Your task to perform on an android device: Open maps Image 0: 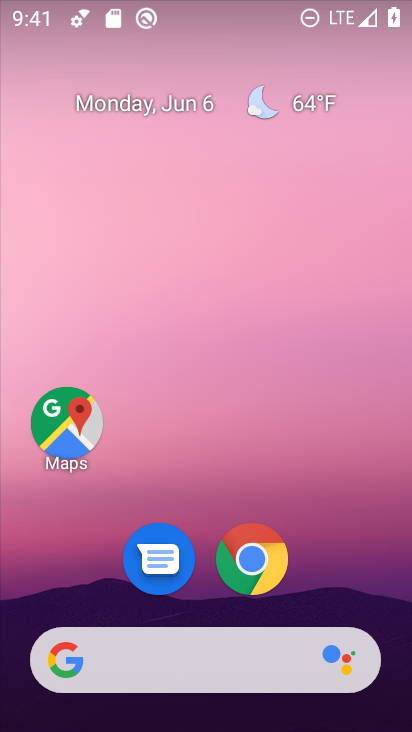
Step 0: drag from (203, 664) to (207, 2)
Your task to perform on an android device: Open maps Image 1: 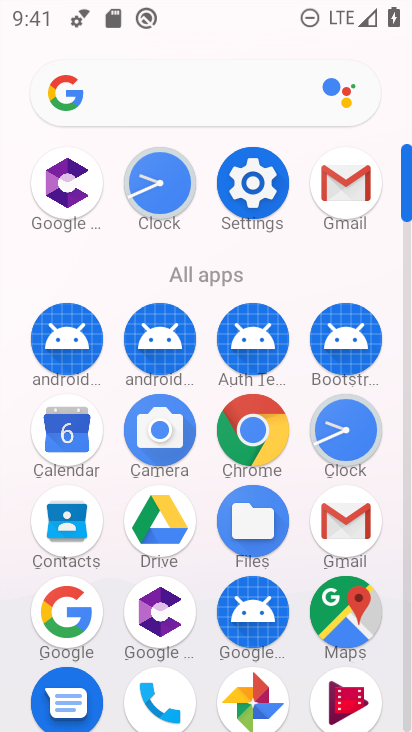
Step 1: click (334, 624)
Your task to perform on an android device: Open maps Image 2: 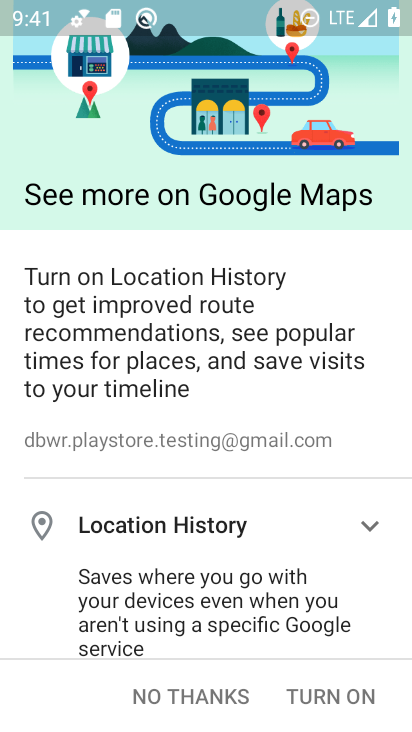
Step 2: click (215, 694)
Your task to perform on an android device: Open maps Image 3: 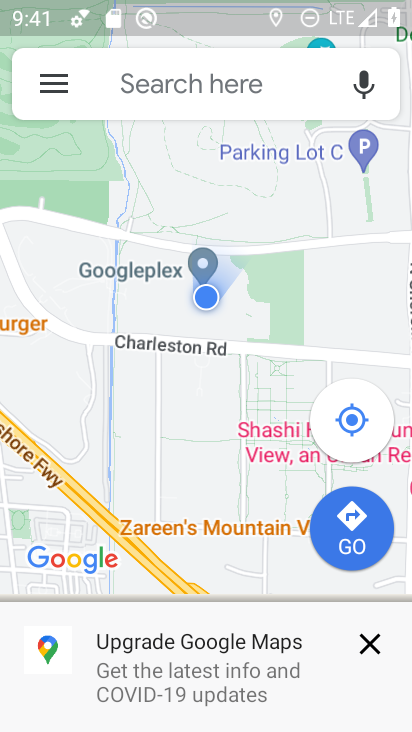
Step 3: task complete